Your task to perform on an android device: Open accessibility settings Image 0: 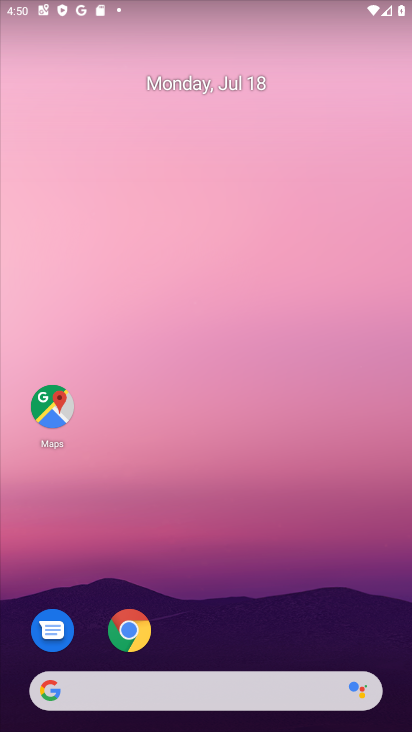
Step 0: press home button
Your task to perform on an android device: Open accessibility settings Image 1: 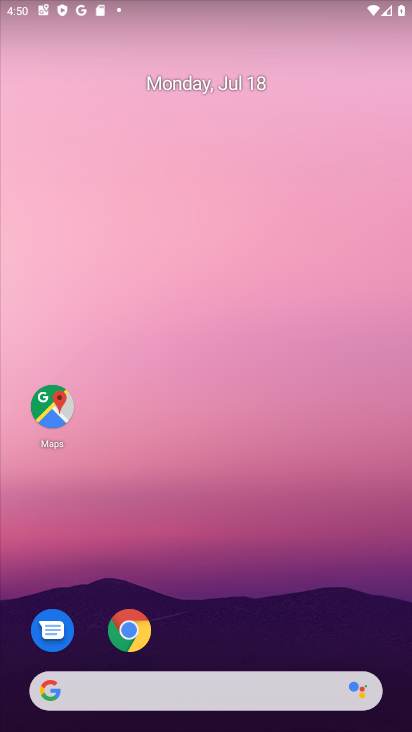
Step 1: drag from (227, 645) to (299, 121)
Your task to perform on an android device: Open accessibility settings Image 2: 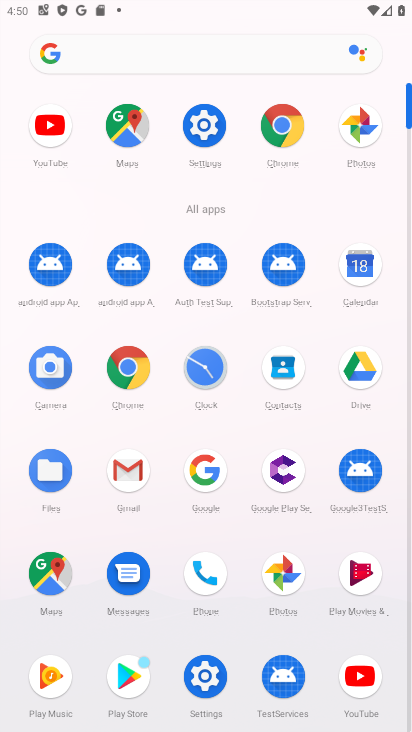
Step 2: click (195, 120)
Your task to perform on an android device: Open accessibility settings Image 3: 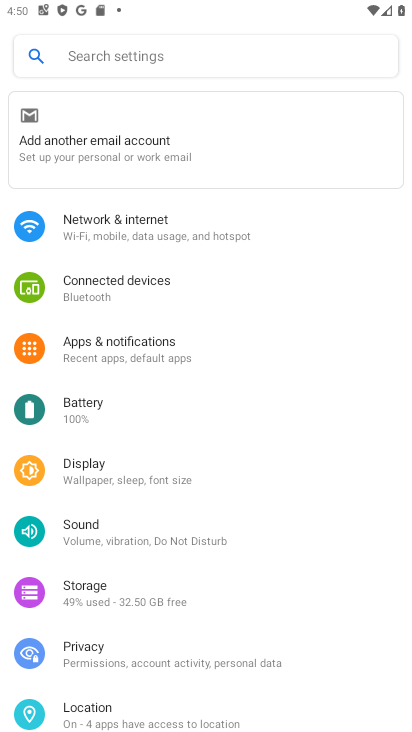
Step 3: drag from (193, 680) to (286, 216)
Your task to perform on an android device: Open accessibility settings Image 4: 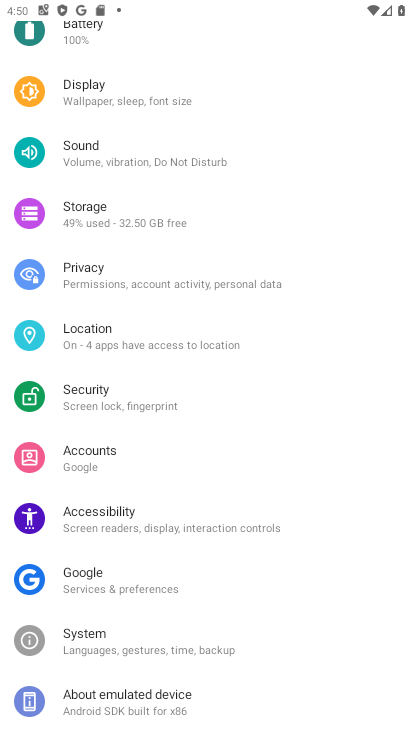
Step 4: click (147, 509)
Your task to perform on an android device: Open accessibility settings Image 5: 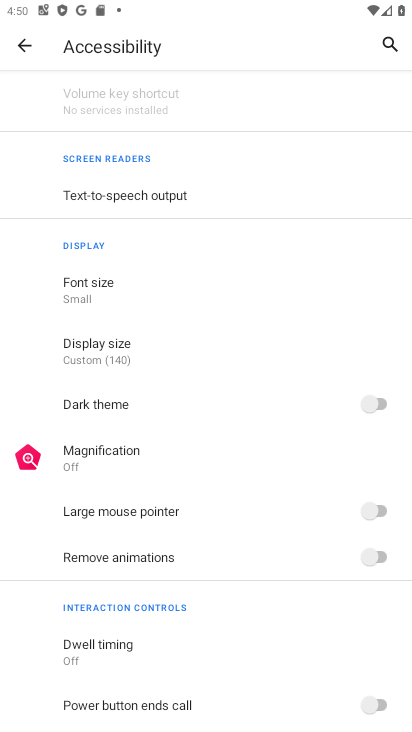
Step 5: task complete